Your task to perform on an android device: When is my next meeting? Image 0: 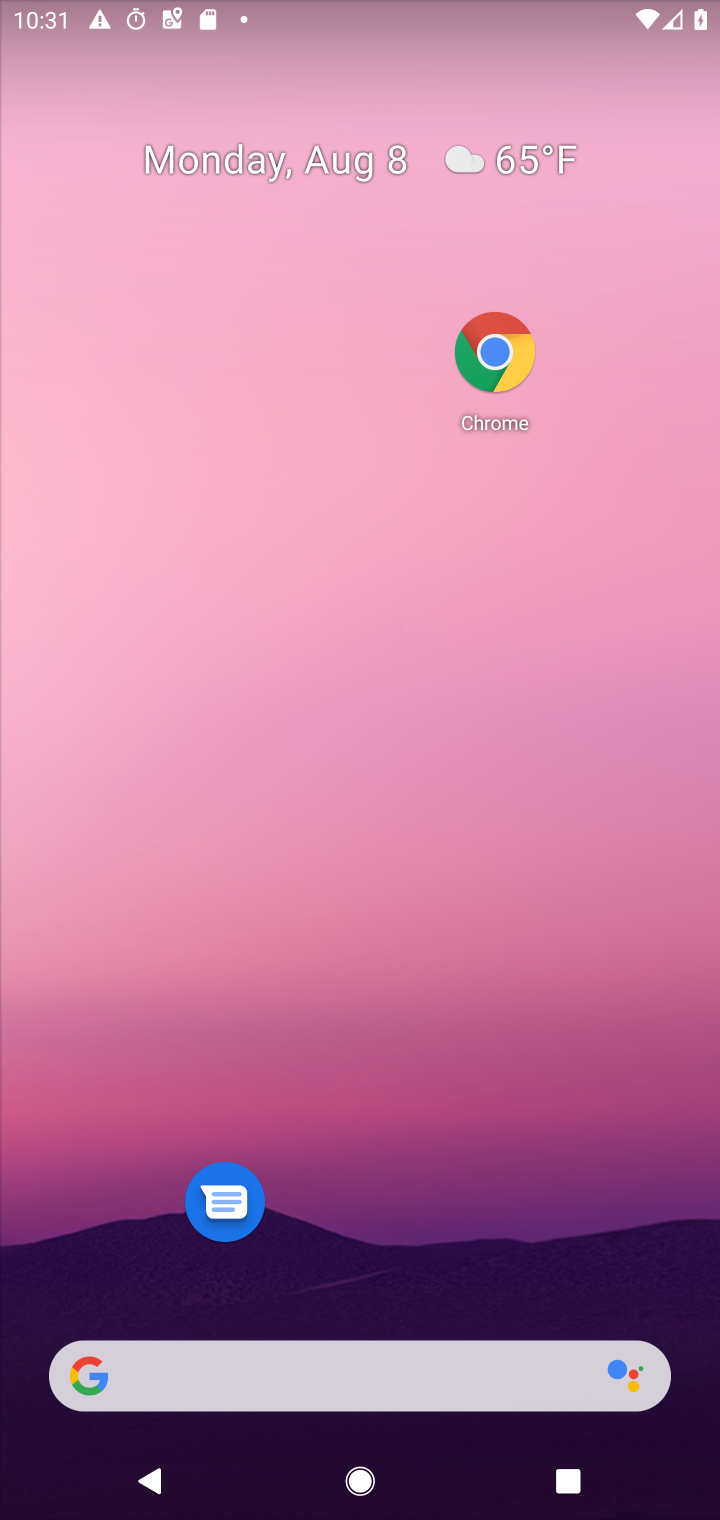
Step 0: drag from (499, 1345) to (708, 93)
Your task to perform on an android device: When is my next meeting? Image 1: 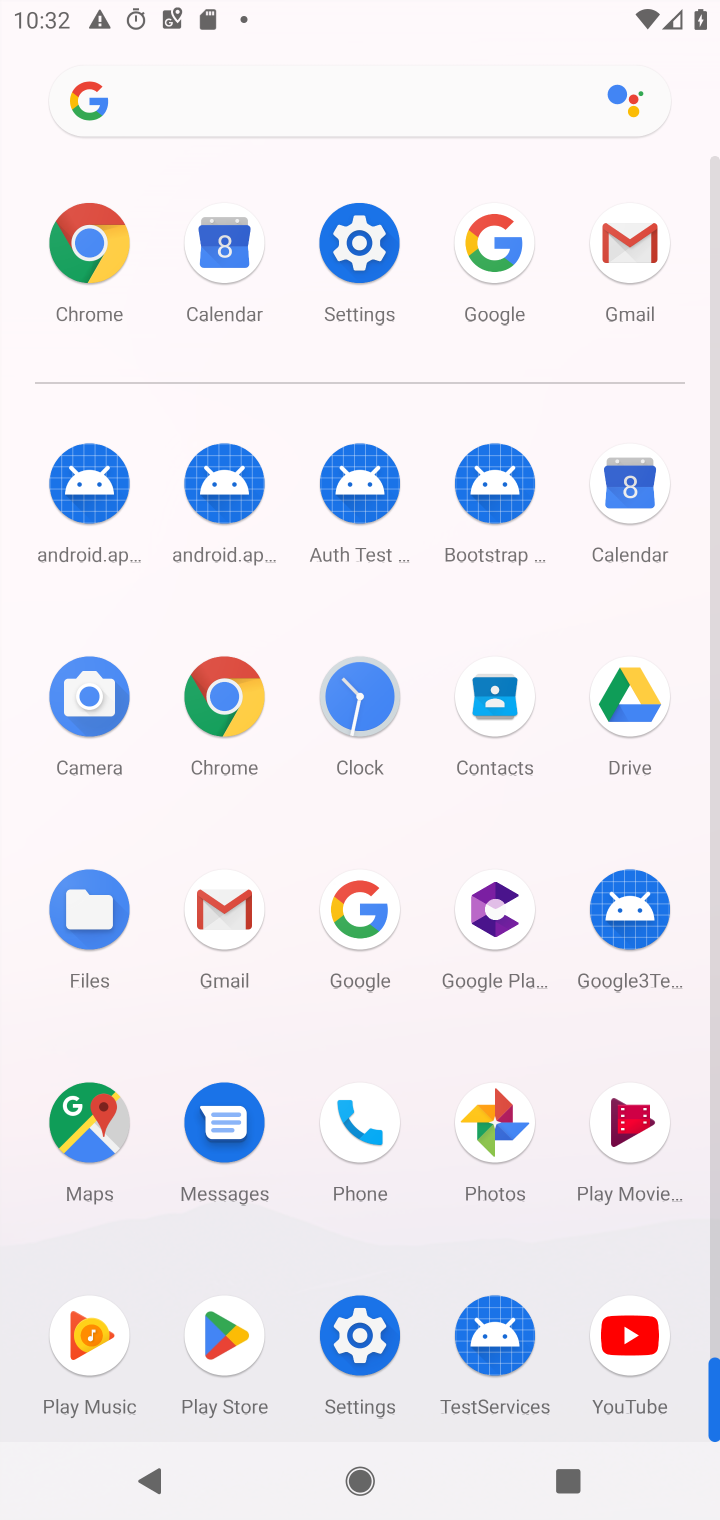
Step 1: click (625, 512)
Your task to perform on an android device: When is my next meeting? Image 2: 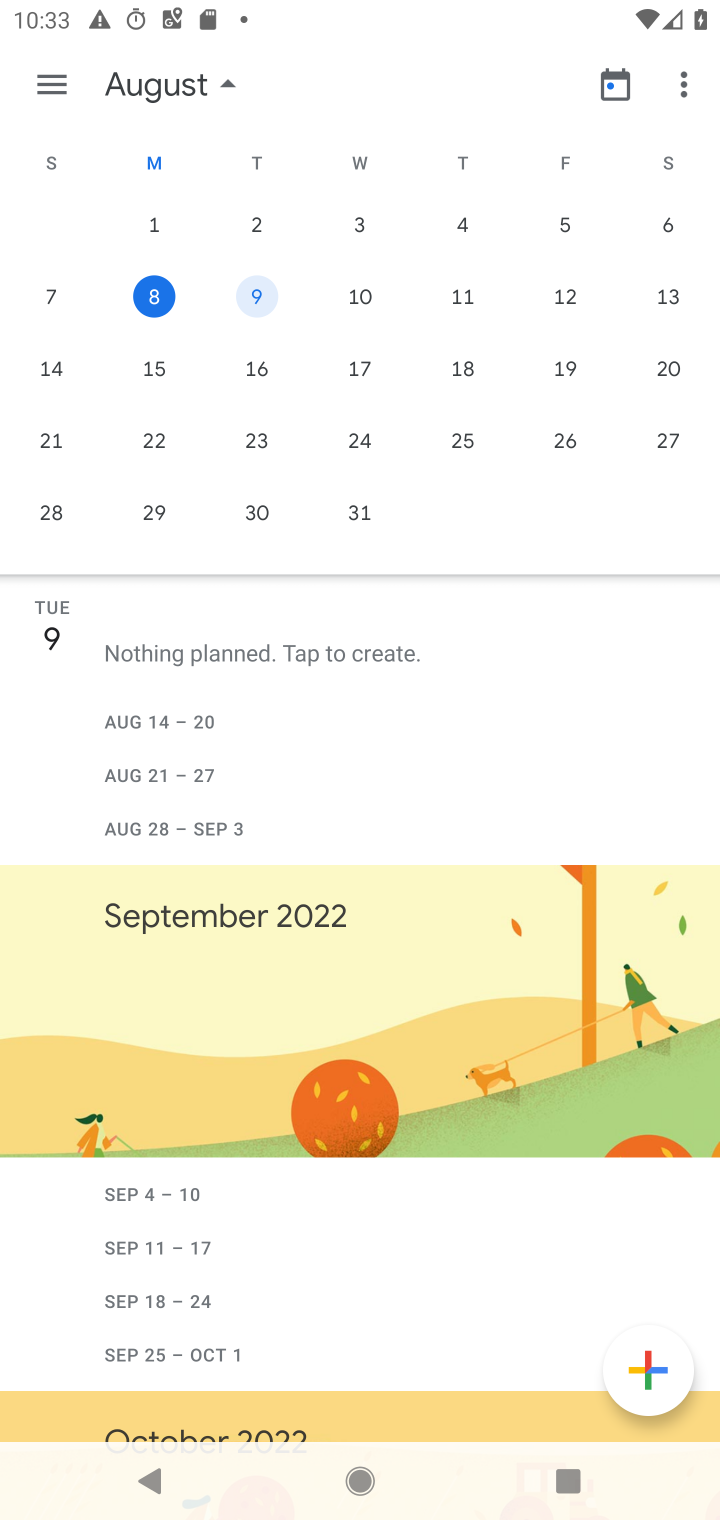
Step 2: task complete